Your task to perform on an android device: What's on my calendar tomorrow? Image 0: 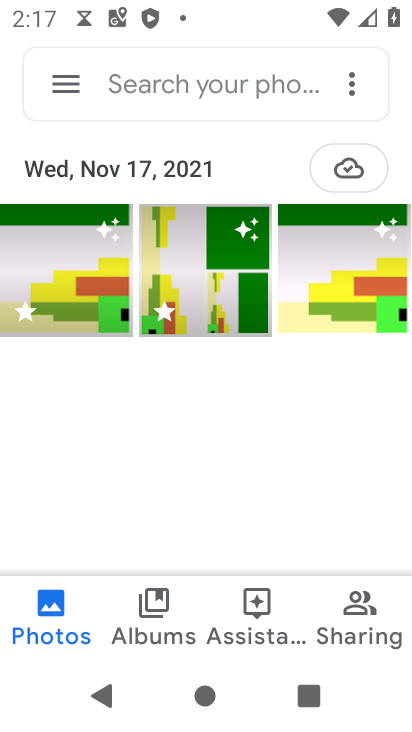
Step 0: press home button
Your task to perform on an android device: What's on my calendar tomorrow? Image 1: 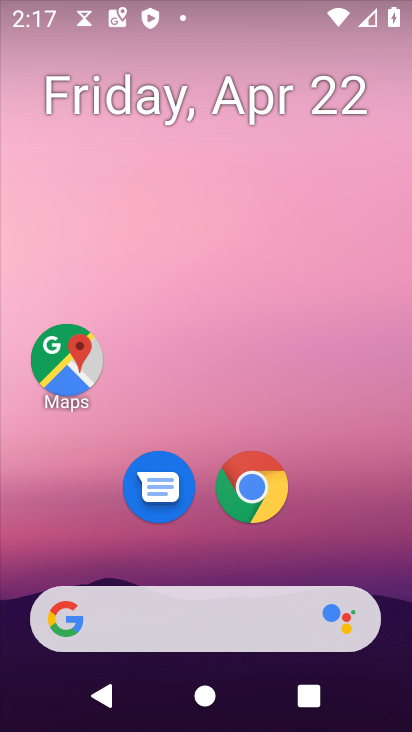
Step 1: drag from (187, 610) to (235, 141)
Your task to perform on an android device: What's on my calendar tomorrow? Image 2: 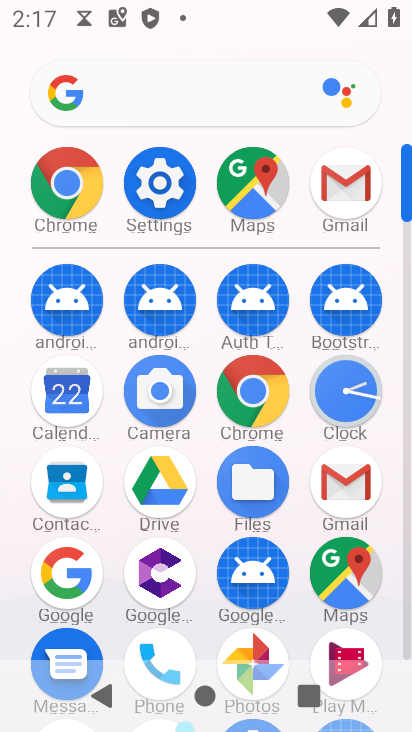
Step 2: click (61, 410)
Your task to perform on an android device: What's on my calendar tomorrow? Image 3: 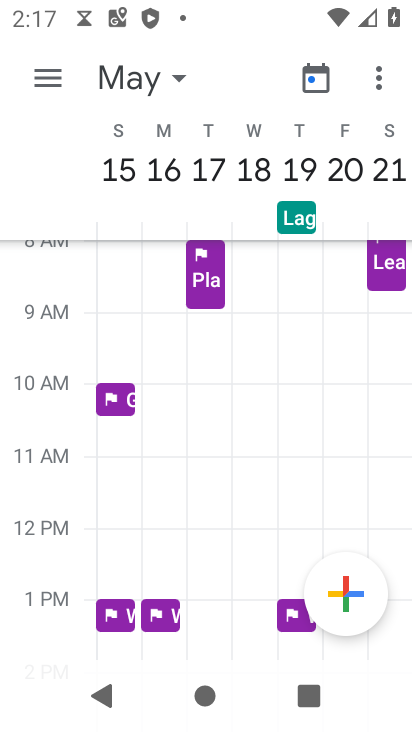
Step 3: click (125, 76)
Your task to perform on an android device: What's on my calendar tomorrow? Image 4: 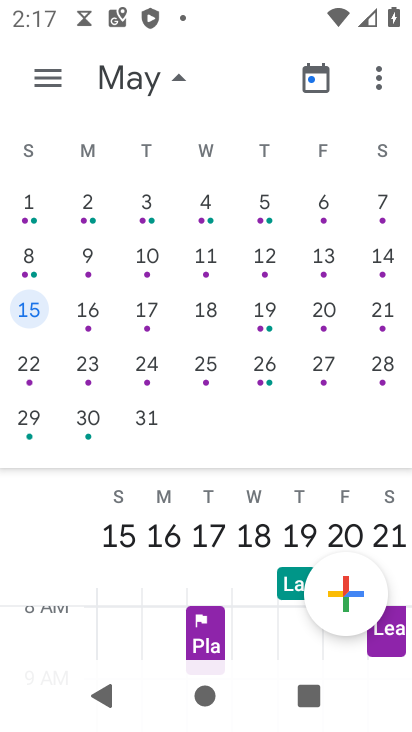
Step 4: drag from (48, 367) to (340, 409)
Your task to perform on an android device: What's on my calendar tomorrow? Image 5: 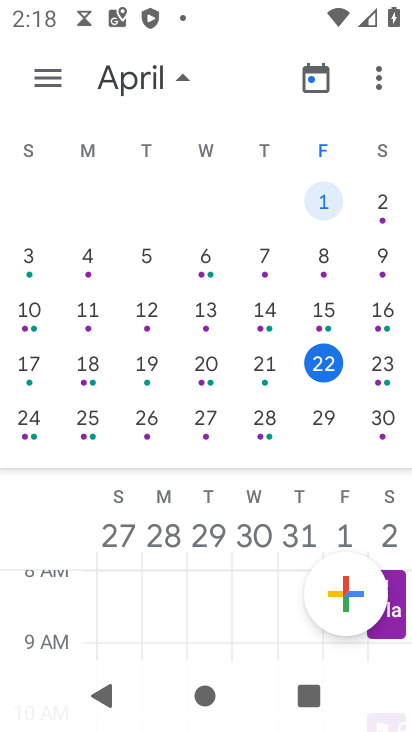
Step 5: click (383, 356)
Your task to perform on an android device: What's on my calendar tomorrow? Image 6: 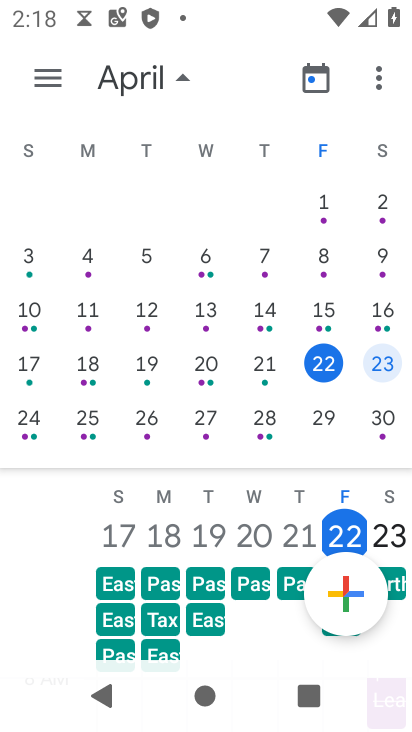
Step 6: click (46, 74)
Your task to perform on an android device: What's on my calendar tomorrow? Image 7: 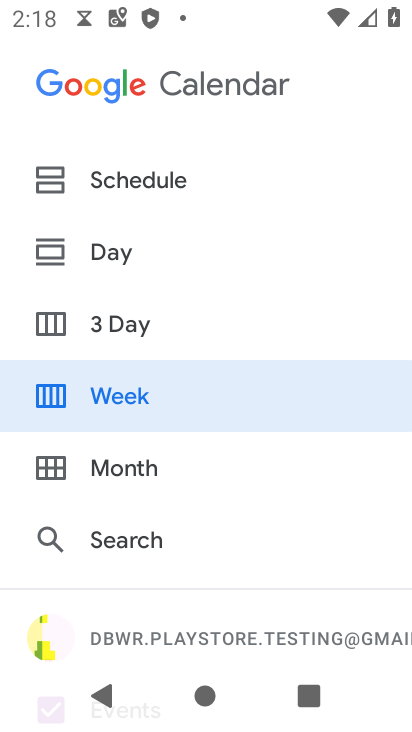
Step 7: click (91, 174)
Your task to perform on an android device: What's on my calendar tomorrow? Image 8: 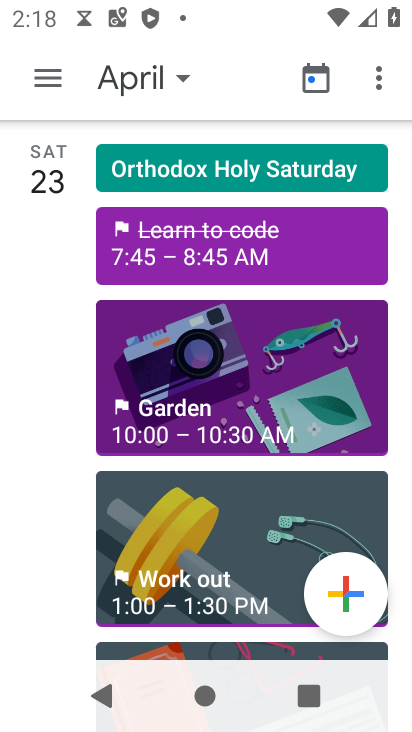
Step 8: drag from (180, 487) to (411, 113)
Your task to perform on an android device: What's on my calendar tomorrow? Image 9: 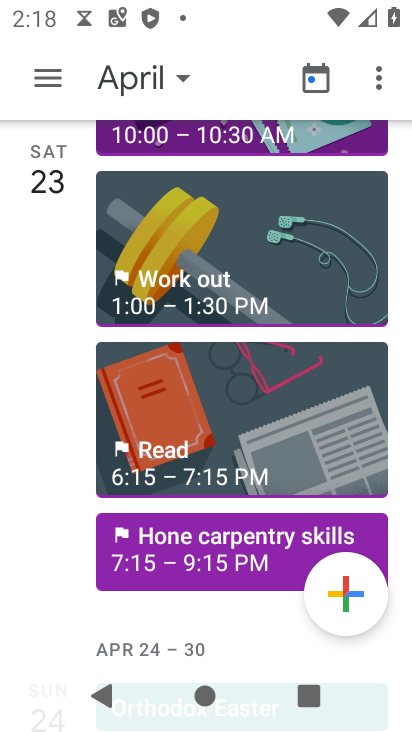
Step 9: click (199, 535)
Your task to perform on an android device: What's on my calendar tomorrow? Image 10: 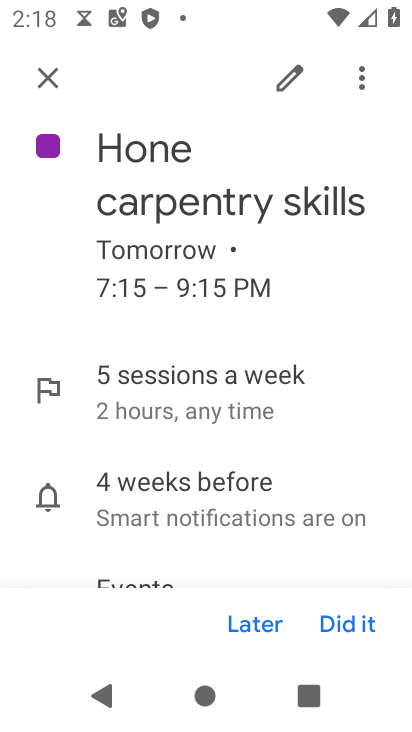
Step 10: task complete